Your task to perform on an android device: turn vacation reply on in the gmail app Image 0: 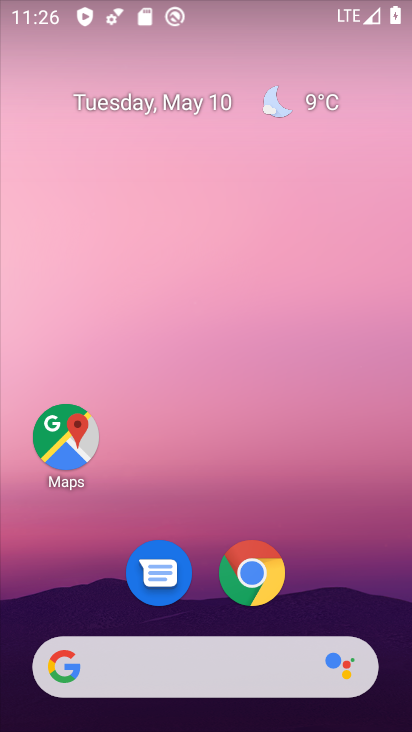
Step 0: drag from (138, 659) to (265, 203)
Your task to perform on an android device: turn vacation reply on in the gmail app Image 1: 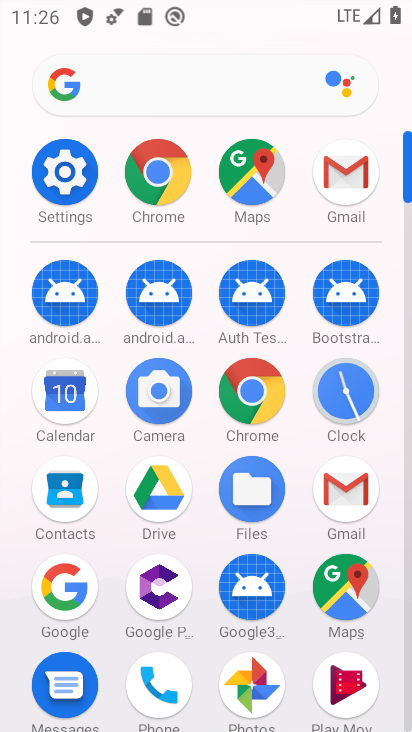
Step 1: click (330, 179)
Your task to perform on an android device: turn vacation reply on in the gmail app Image 2: 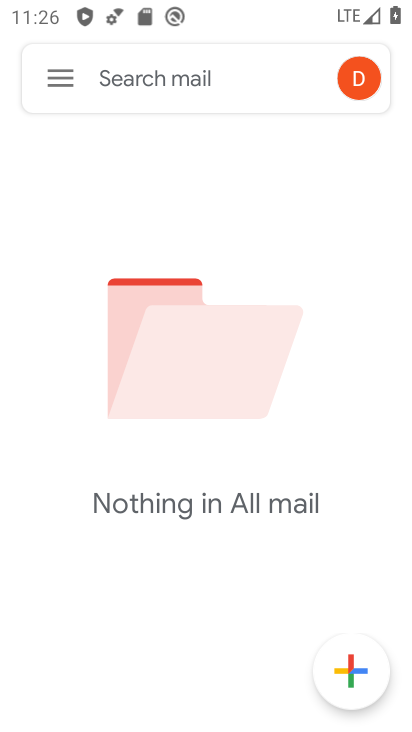
Step 2: click (47, 80)
Your task to perform on an android device: turn vacation reply on in the gmail app Image 3: 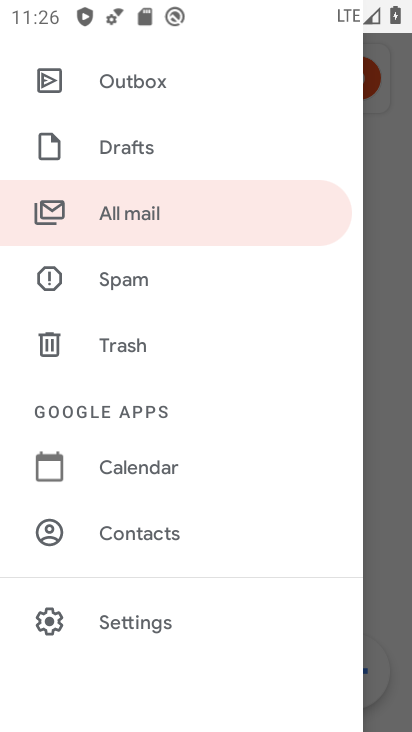
Step 3: click (134, 623)
Your task to perform on an android device: turn vacation reply on in the gmail app Image 4: 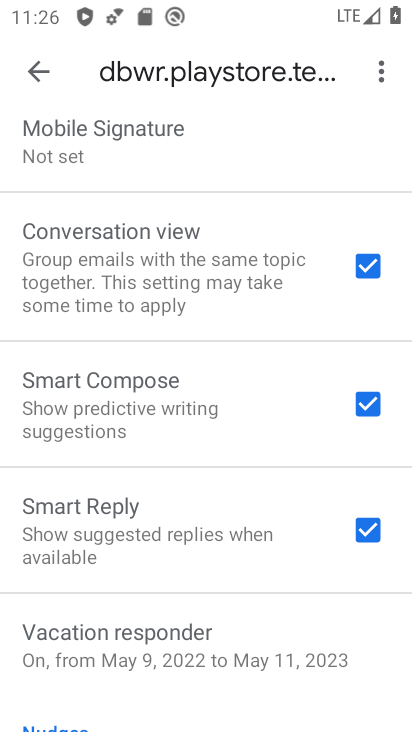
Step 4: drag from (211, 537) to (303, 247)
Your task to perform on an android device: turn vacation reply on in the gmail app Image 5: 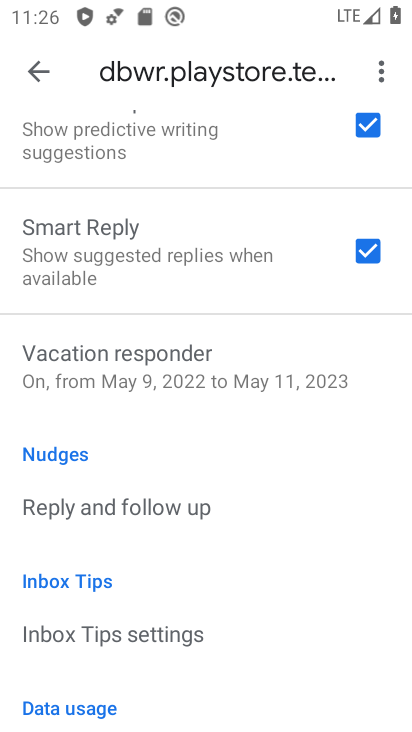
Step 5: click (158, 344)
Your task to perform on an android device: turn vacation reply on in the gmail app Image 6: 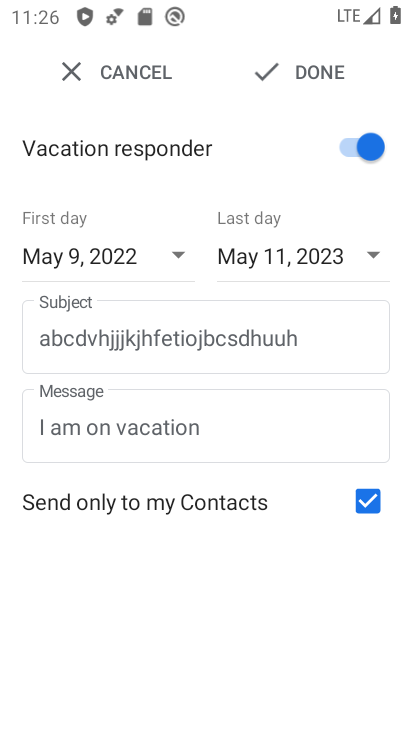
Step 6: task complete